Your task to perform on an android device: Go to wifi settings Image 0: 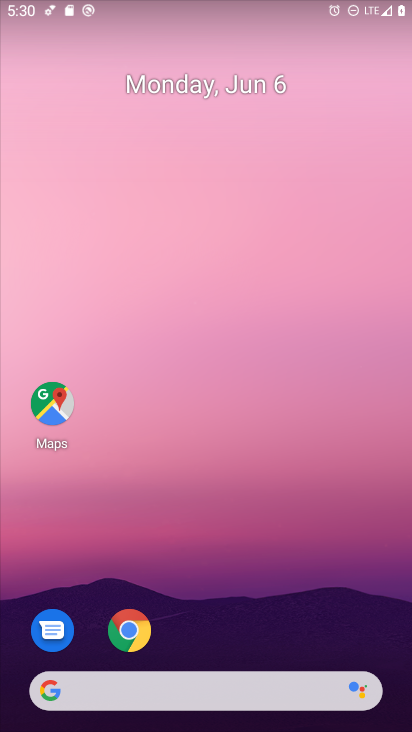
Step 0: drag from (319, 618) to (7, 61)
Your task to perform on an android device: Go to wifi settings Image 1: 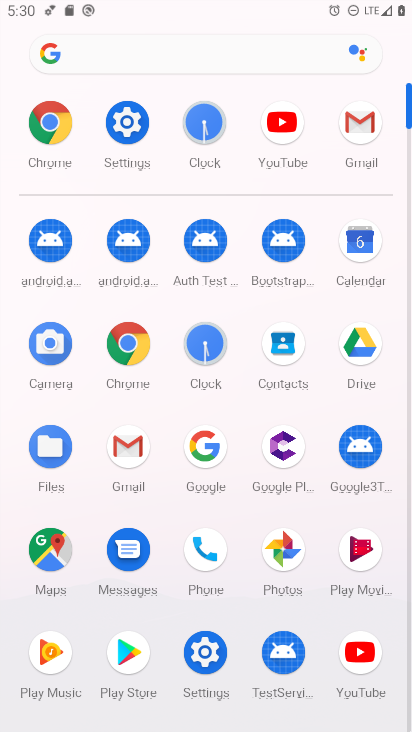
Step 1: click (132, 154)
Your task to perform on an android device: Go to wifi settings Image 2: 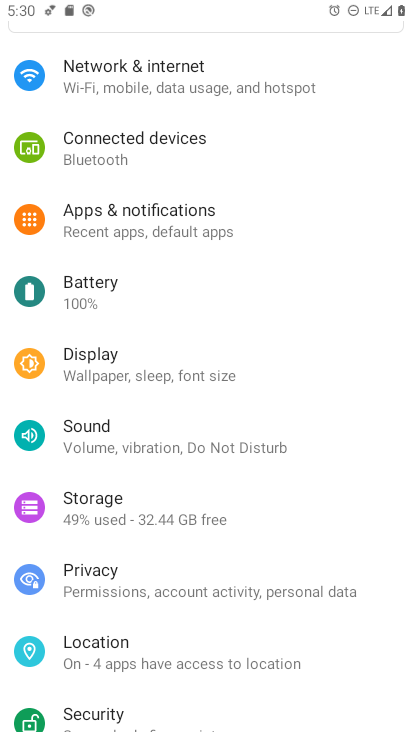
Step 2: drag from (203, 84) to (176, 380)
Your task to perform on an android device: Go to wifi settings Image 3: 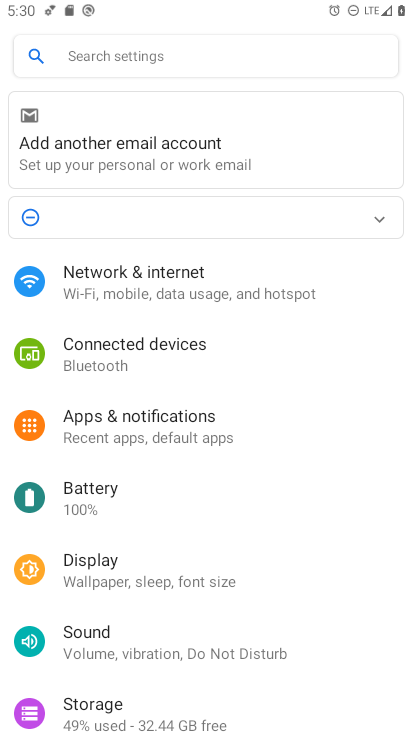
Step 3: click (190, 303)
Your task to perform on an android device: Go to wifi settings Image 4: 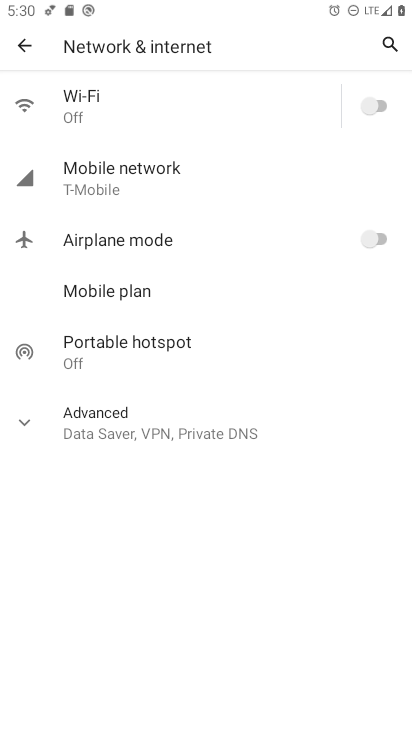
Step 4: click (190, 113)
Your task to perform on an android device: Go to wifi settings Image 5: 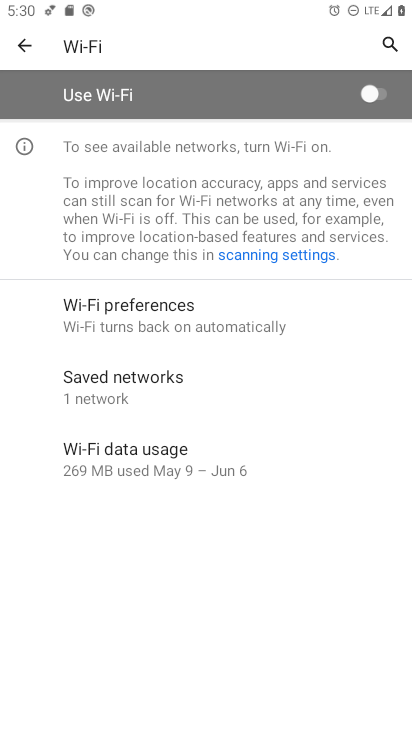
Step 5: task complete